Your task to perform on an android device: Show me popular videos on Youtube Image 0: 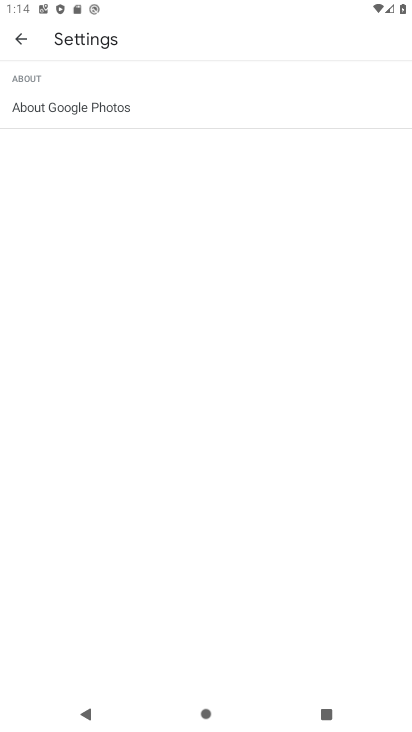
Step 0: click (47, 392)
Your task to perform on an android device: Show me popular videos on Youtube Image 1: 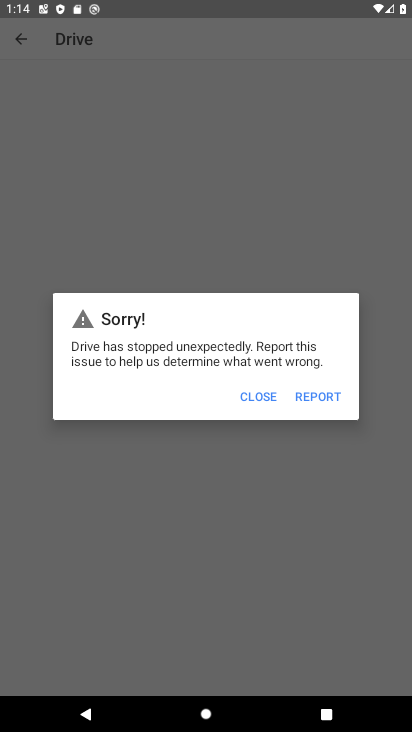
Step 1: press home button
Your task to perform on an android device: Show me popular videos on Youtube Image 2: 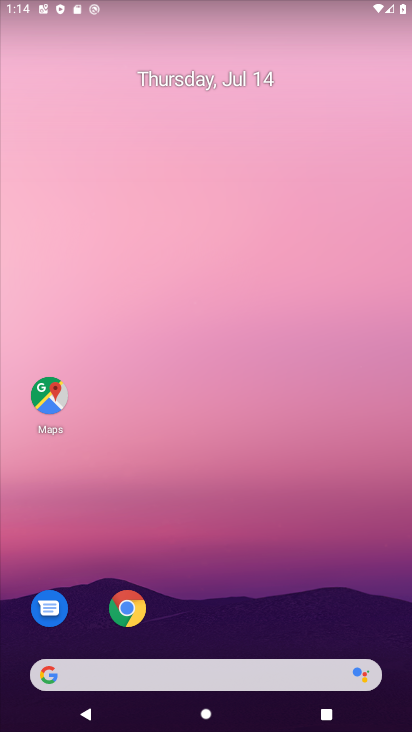
Step 2: drag from (336, 425) to (312, 24)
Your task to perform on an android device: Show me popular videos on Youtube Image 3: 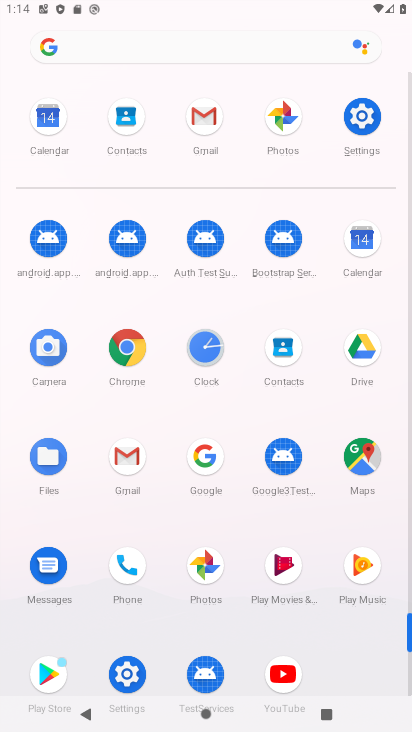
Step 3: click (280, 671)
Your task to perform on an android device: Show me popular videos on Youtube Image 4: 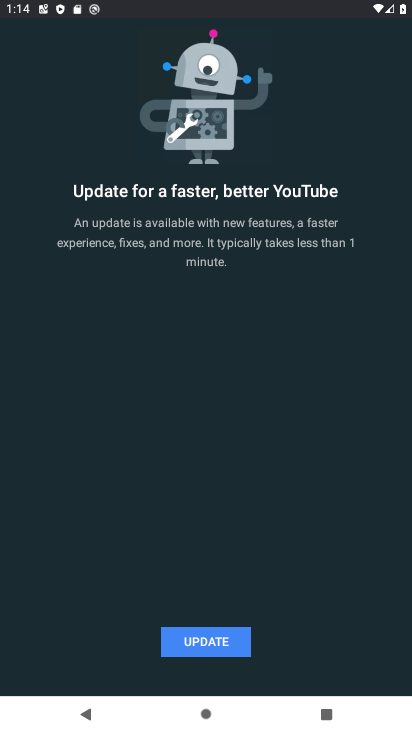
Step 4: click (200, 639)
Your task to perform on an android device: Show me popular videos on Youtube Image 5: 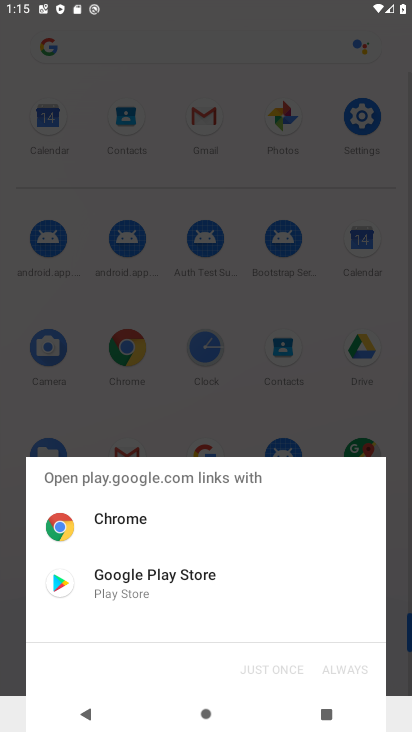
Step 5: click (127, 577)
Your task to perform on an android device: Show me popular videos on Youtube Image 6: 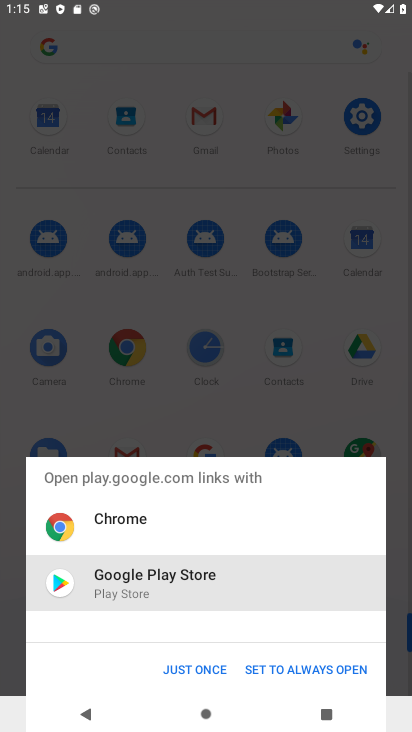
Step 6: click (198, 668)
Your task to perform on an android device: Show me popular videos on Youtube Image 7: 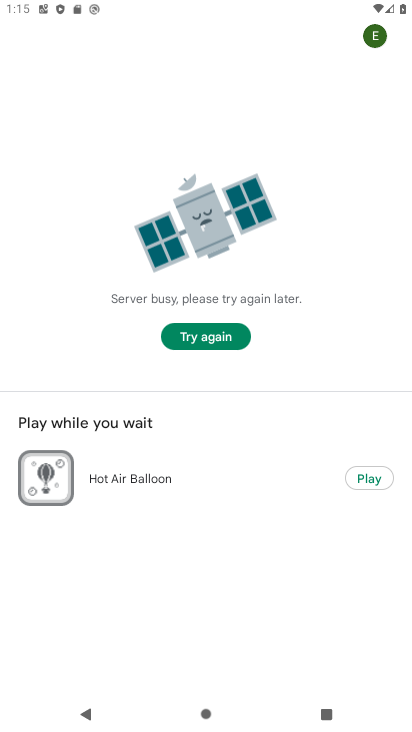
Step 7: click (210, 332)
Your task to perform on an android device: Show me popular videos on Youtube Image 8: 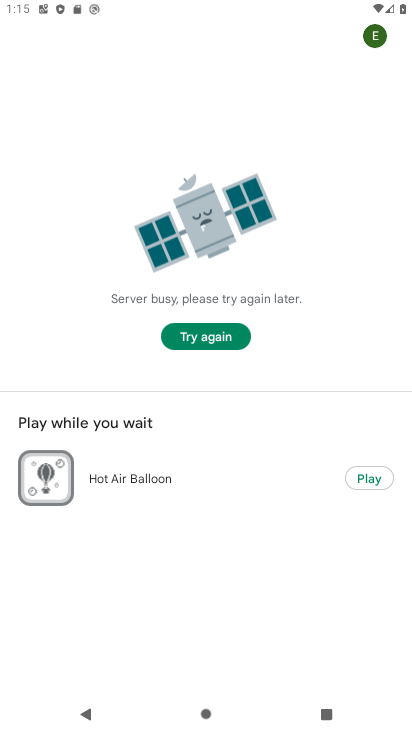
Step 8: click (187, 338)
Your task to perform on an android device: Show me popular videos on Youtube Image 9: 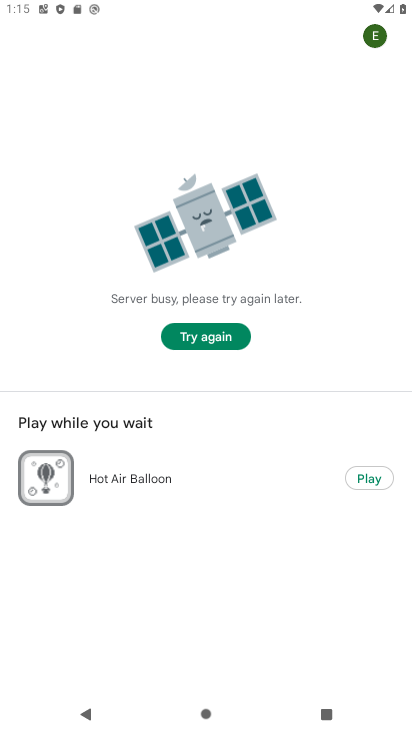
Step 9: click (205, 336)
Your task to perform on an android device: Show me popular videos on Youtube Image 10: 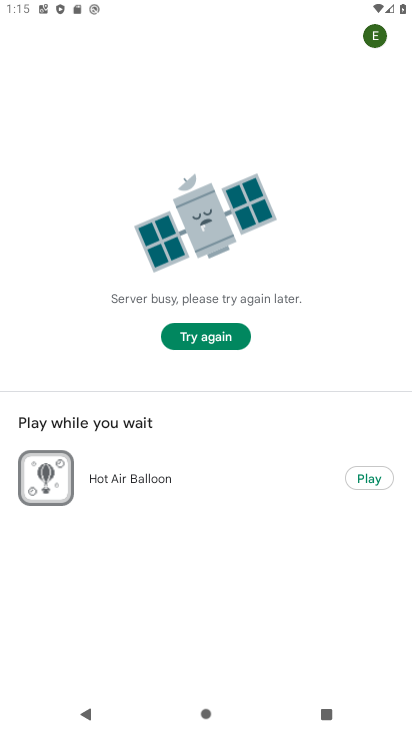
Step 10: click (222, 338)
Your task to perform on an android device: Show me popular videos on Youtube Image 11: 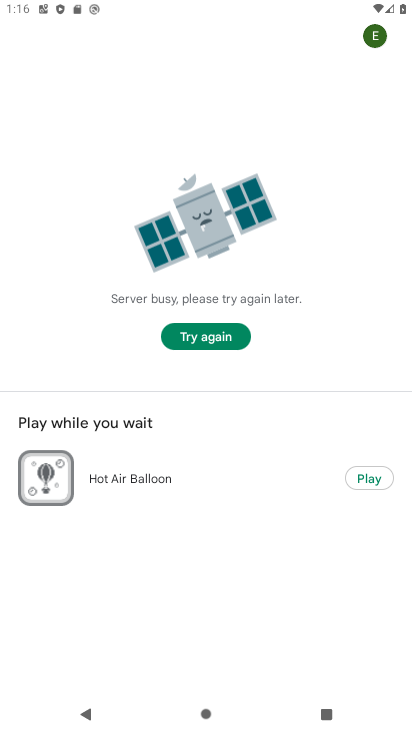
Step 11: click (192, 336)
Your task to perform on an android device: Show me popular videos on Youtube Image 12: 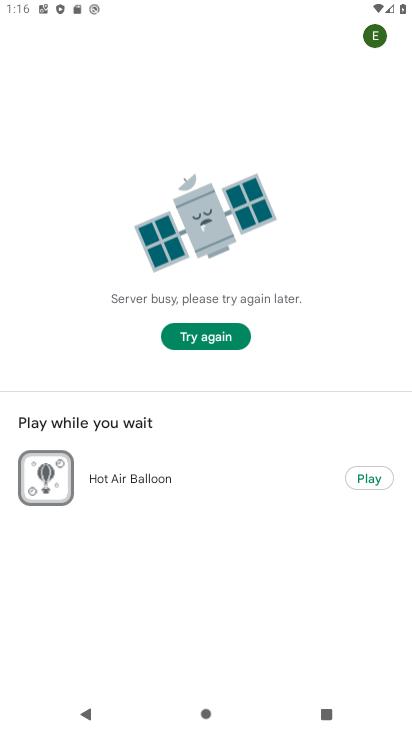
Step 12: click (186, 337)
Your task to perform on an android device: Show me popular videos on Youtube Image 13: 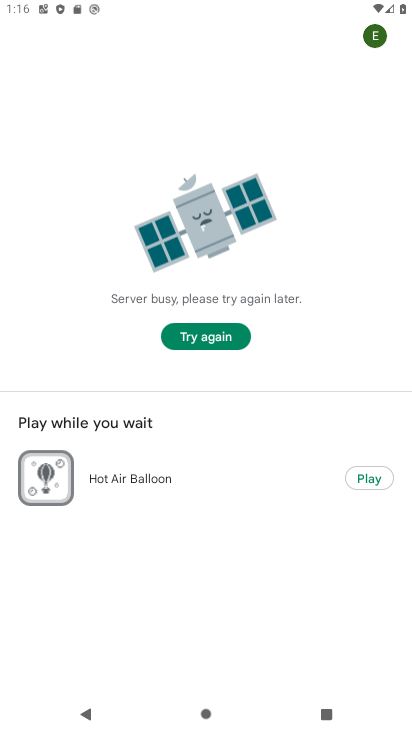
Step 13: click (219, 341)
Your task to perform on an android device: Show me popular videos on Youtube Image 14: 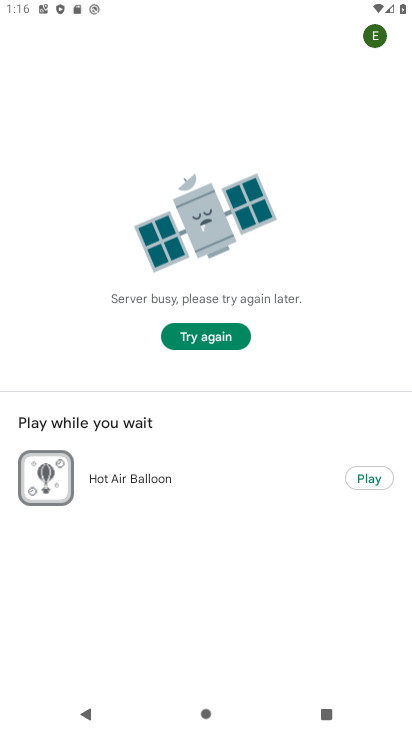
Step 14: task complete